Your task to perform on an android device: toggle translation in the chrome app Image 0: 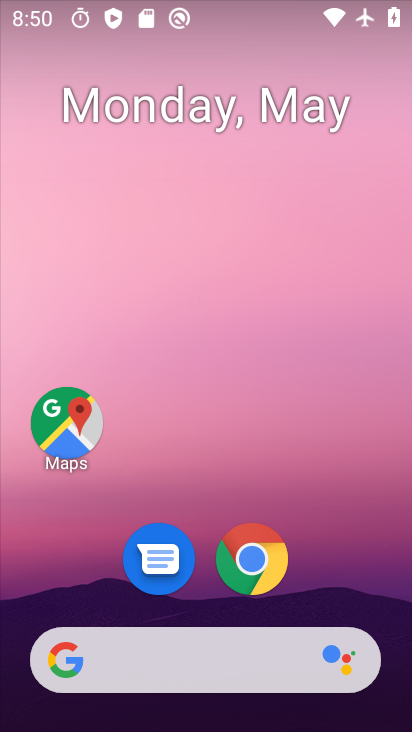
Step 0: click (255, 549)
Your task to perform on an android device: toggle translation in the chrome app Image 1: 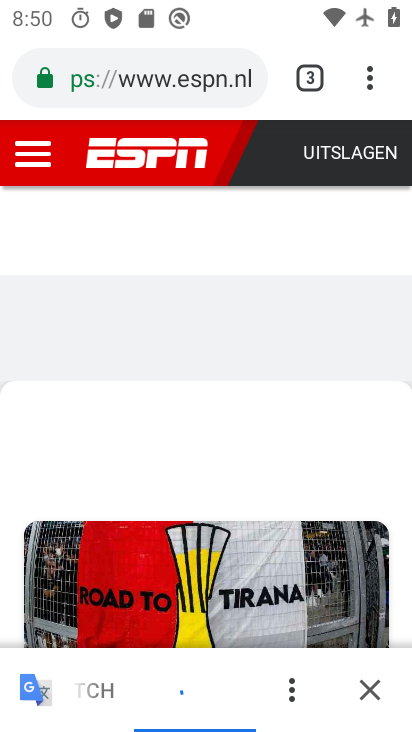
Step 1: click (368, 76)
Your task to perform on an android device: toggle translation in the chrome app Image 2: 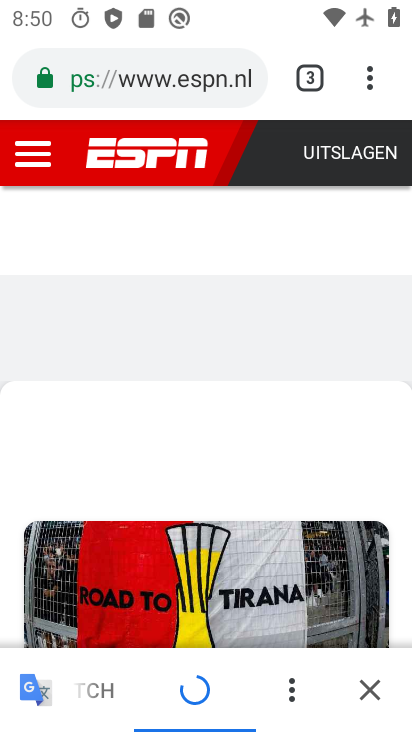
Step 2: click (366, 87)
Your task to perform on an android device: toggle translation in the chrome app Image 3: 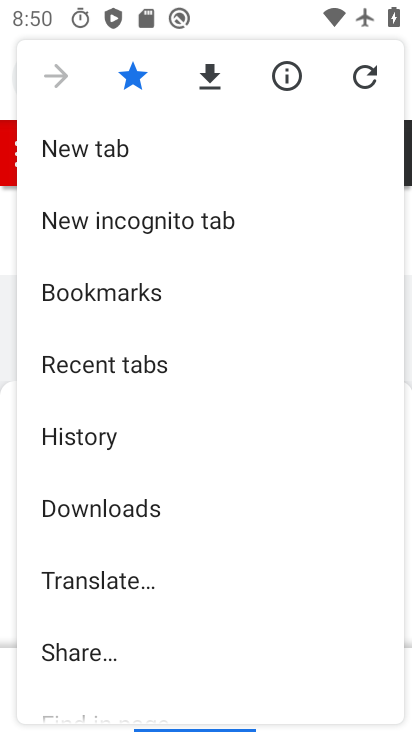
Step 3: drag from (192, 665) to (217, 249)
Your task to perform on an android device: toggle translation in the chrome app Image 4: 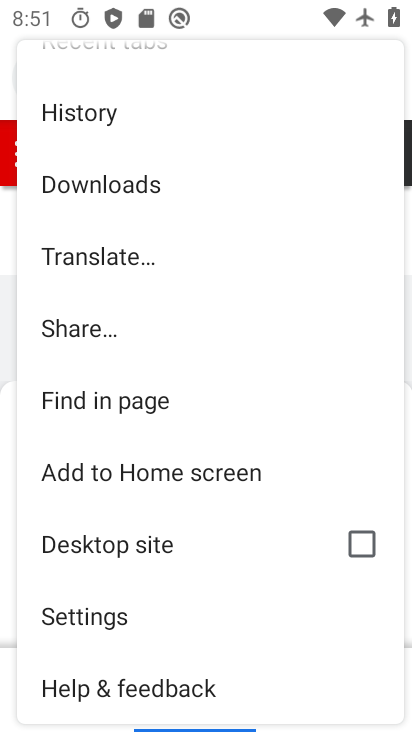
Step 4: click (98, 606)
Your task to perform on an android device: toggle translation in the chrome app Image 5: 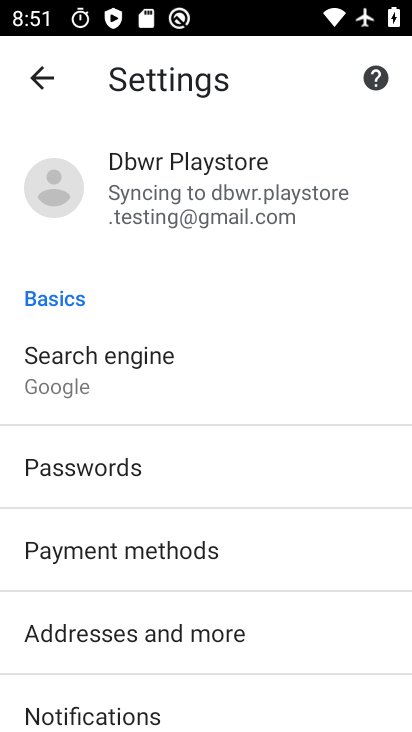
Step 5: drag from (185, 660) to (220, 337)
Your task to perform on an android device: toggle translation in the chrome app Image 6: 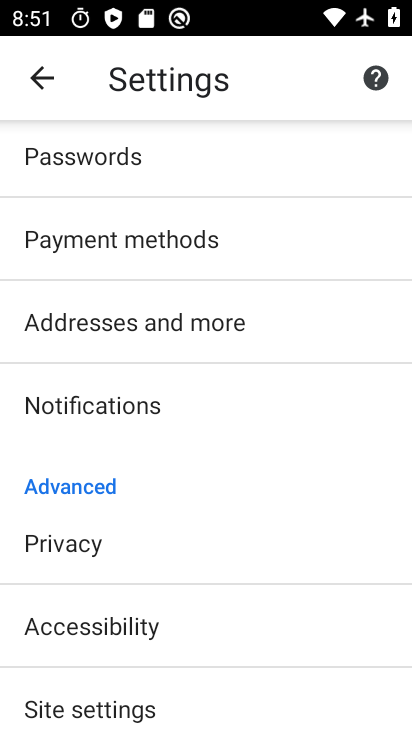
Step 6: drag from (137, 690) to (155, 427)
Your task to perform on an android device: toggle translation in the chrome app Image 7: 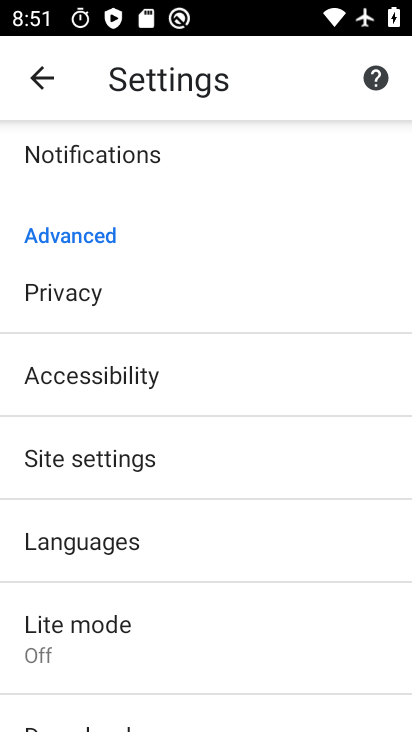
Step 7: click (142, 550)
Your task to perform on an android device: toggle translation in the chrome app Image 8: 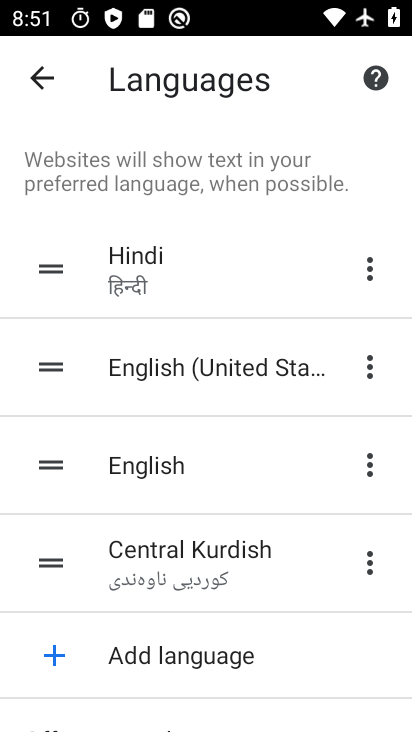
Step 8: drag from (209, 691) to (250, 376)
Your task to perform on an android device: toggle translation in the chrome app Image 9: 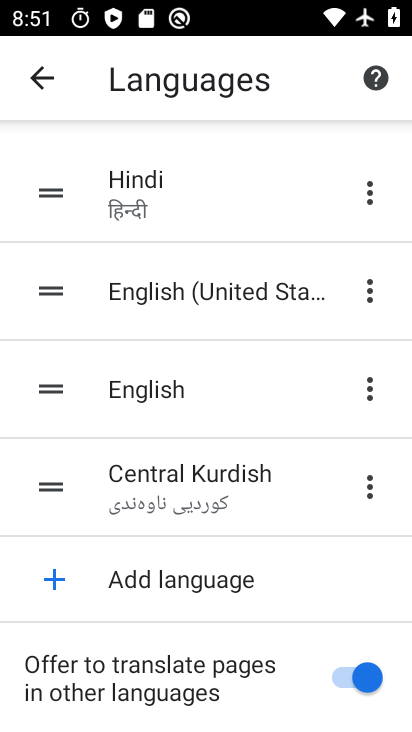
Step 9: click (342, 677)
Your task to perform on an android device: toggle translation in the chrome app Image 10: 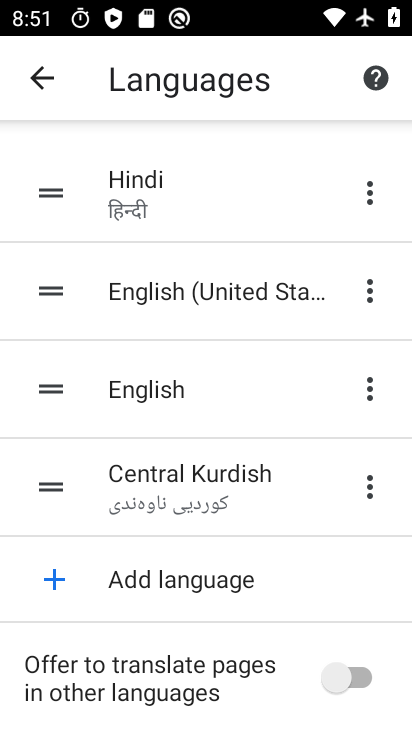
Step 10: task complete